Your task to perform on an android device: open app "Spotify: Music and Podcasts" (install if not already installed) Image 0: 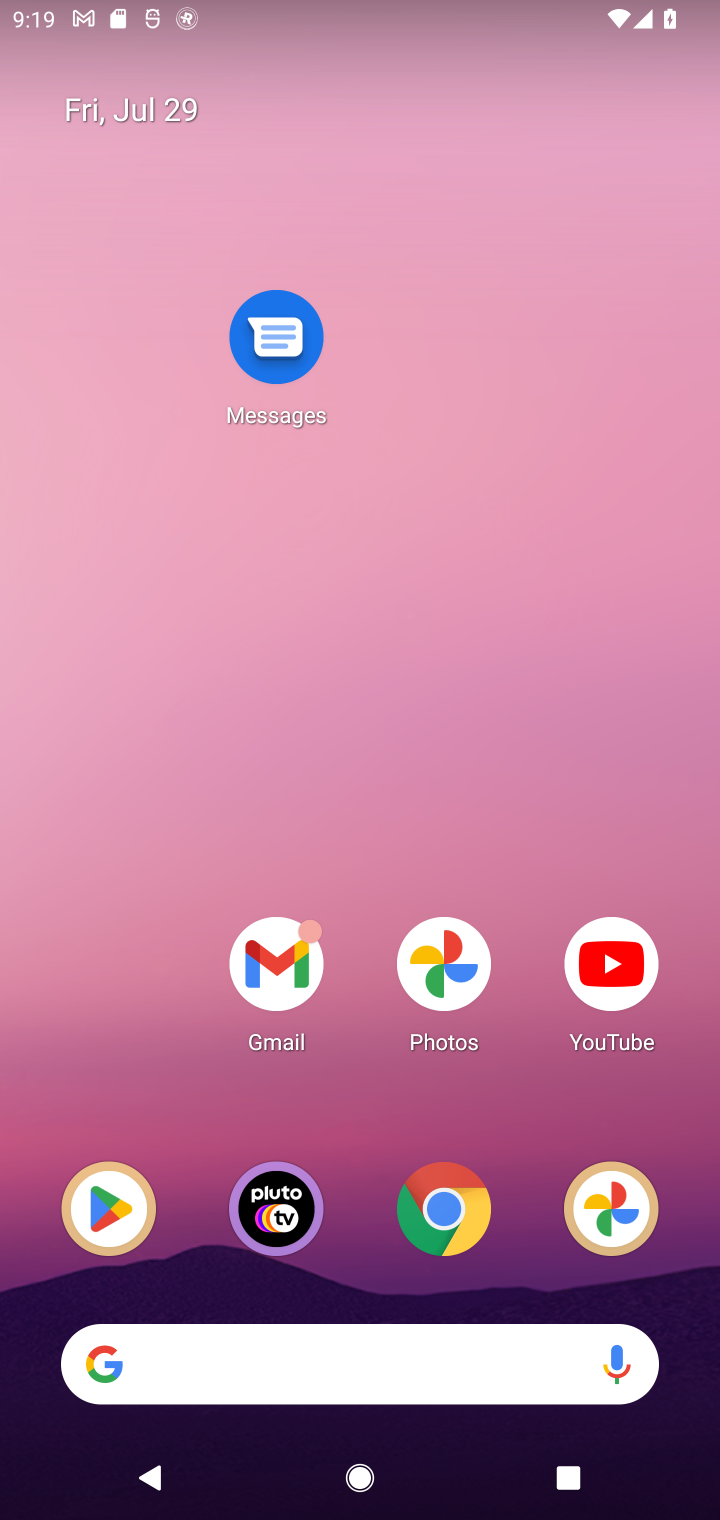
Step 0: press home button
Your task to perform on an android device: open app "Spotify: Music and Podcasts" (install if not already installed) Image 1: 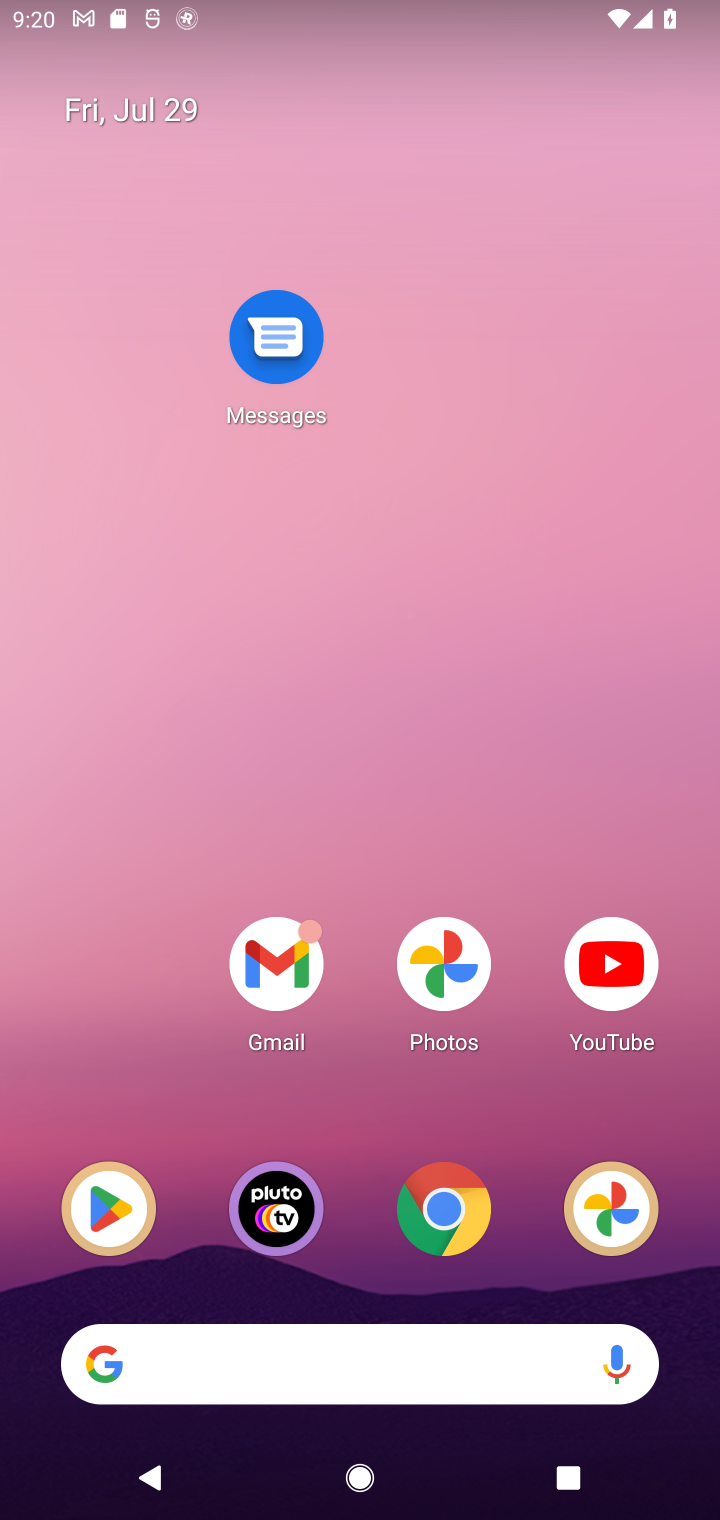
Step 1: drag from (286, 1369) to (361, 142)
Your task to perform on an android device: open app "Spotify: Music and Podcasts" (install if not already installed) Image 2: 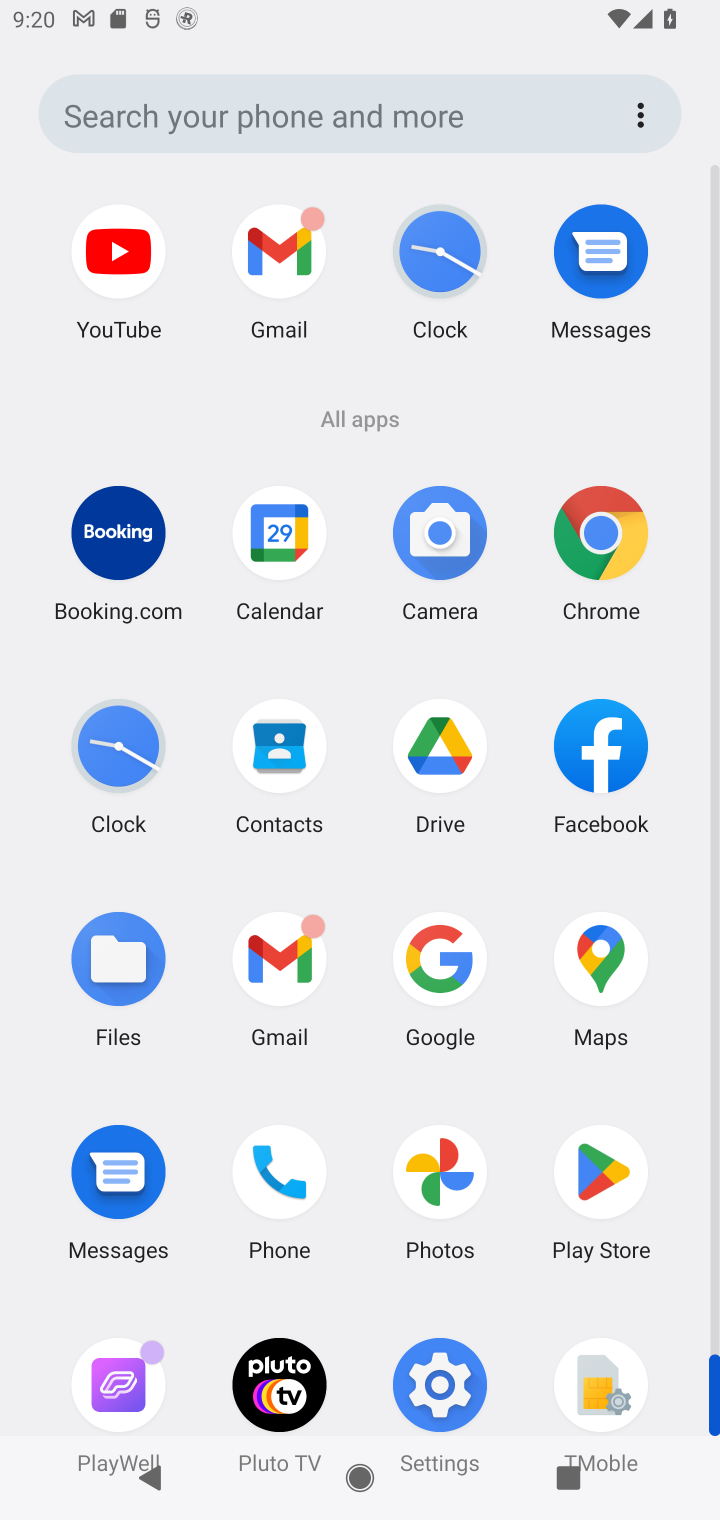
Step 2: click (594, 1186)
Your task to perform on an android device: open app "Spotify: Music and Podcasts" (install if not already installed) Image 3: 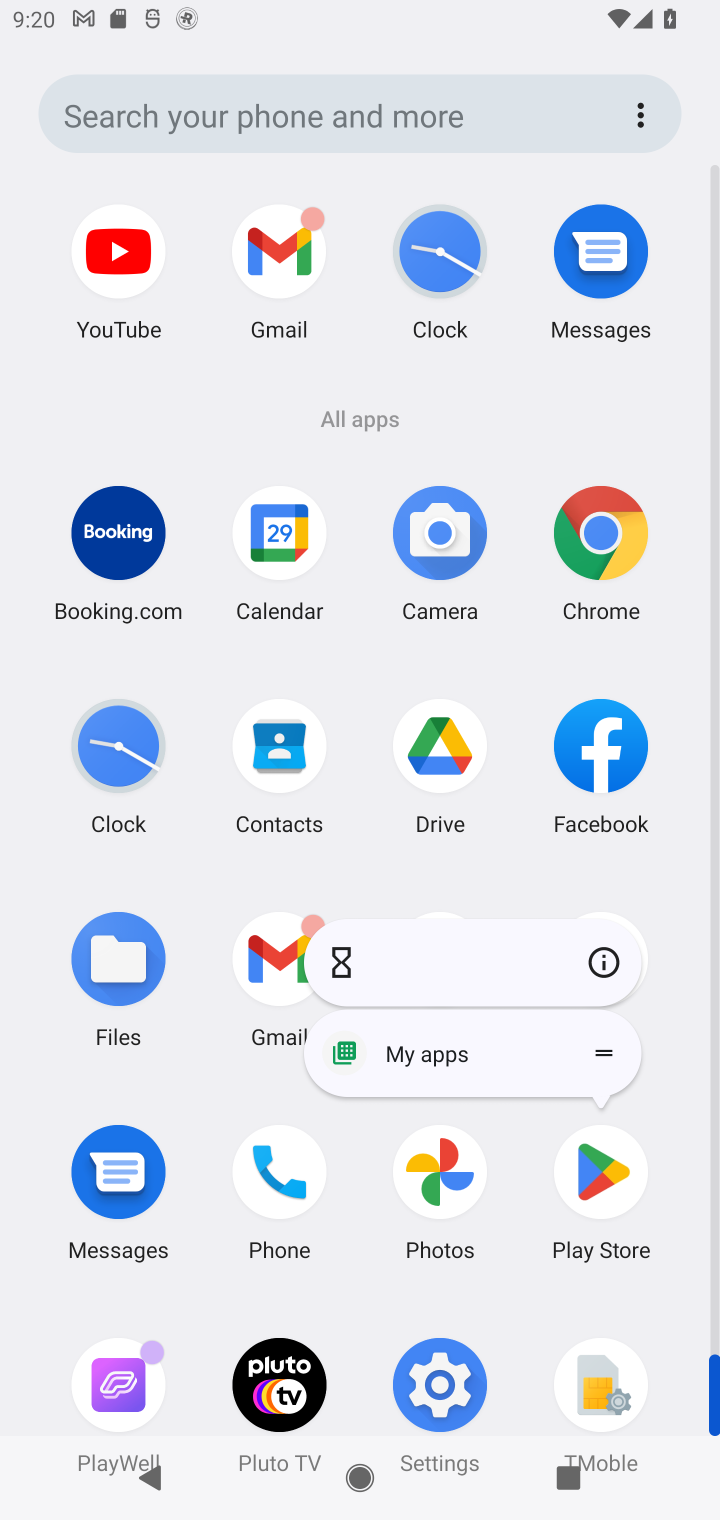
Step 3: click (594, 1186)
Your task to perform on an android device: open app "Spotify: Music and Podcasts" (install if not already installed) Image 4: 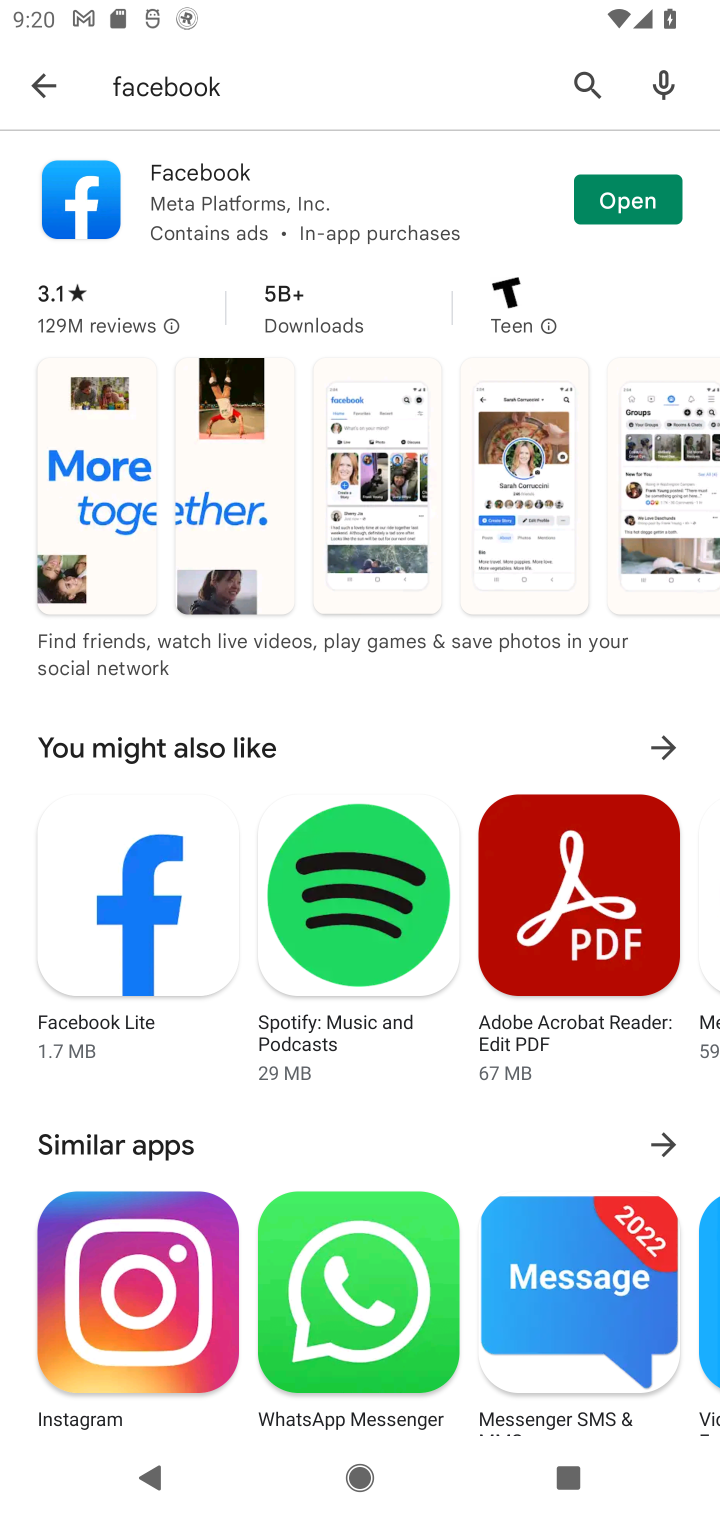
Step 4: click (474, 79)
Your task to perform on an android device: open app "Spotify: Music and Podcasts" (install if not already installed) Image 5: 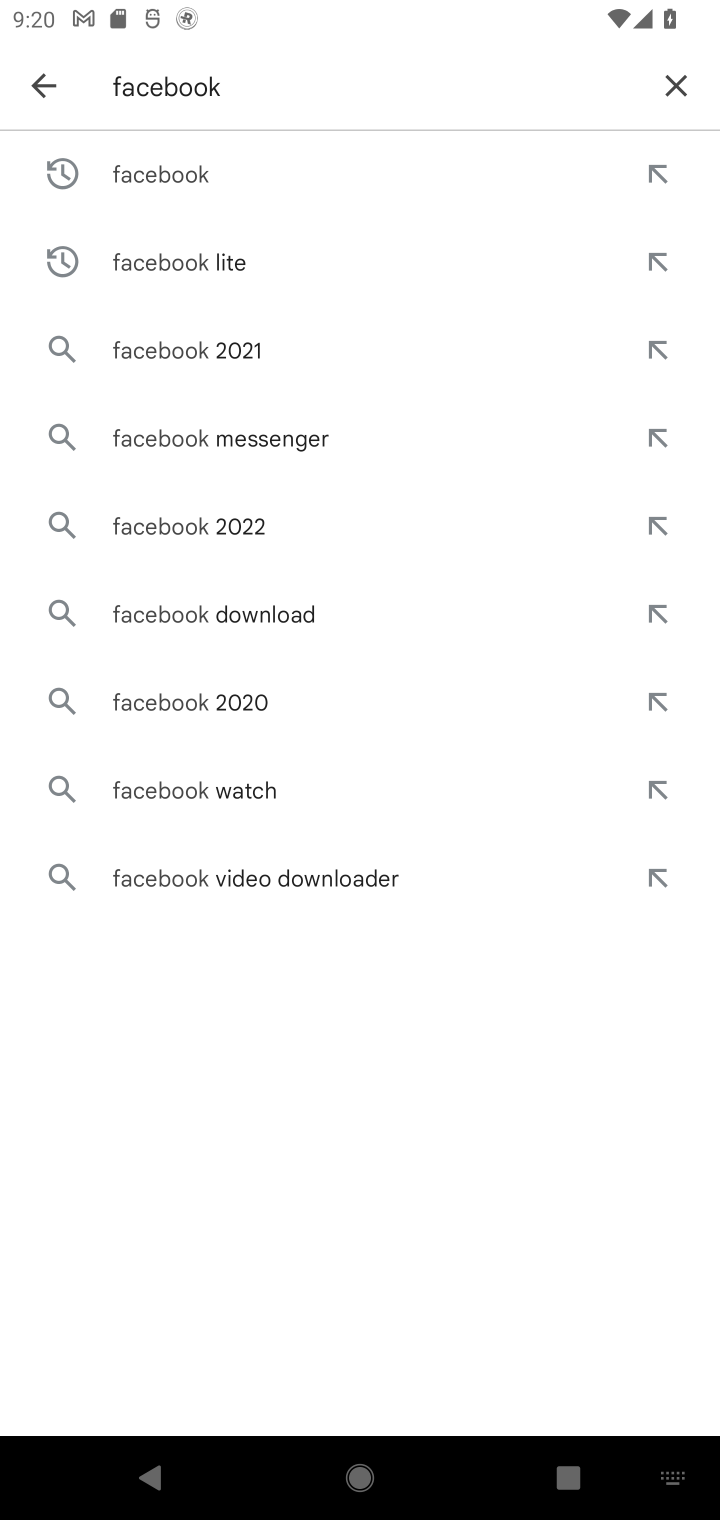
Step 5: click (668, 77)
Your task to perform on an android device: open app "Spotify: Music and Podcasts" (install if not already installed) Image 6: 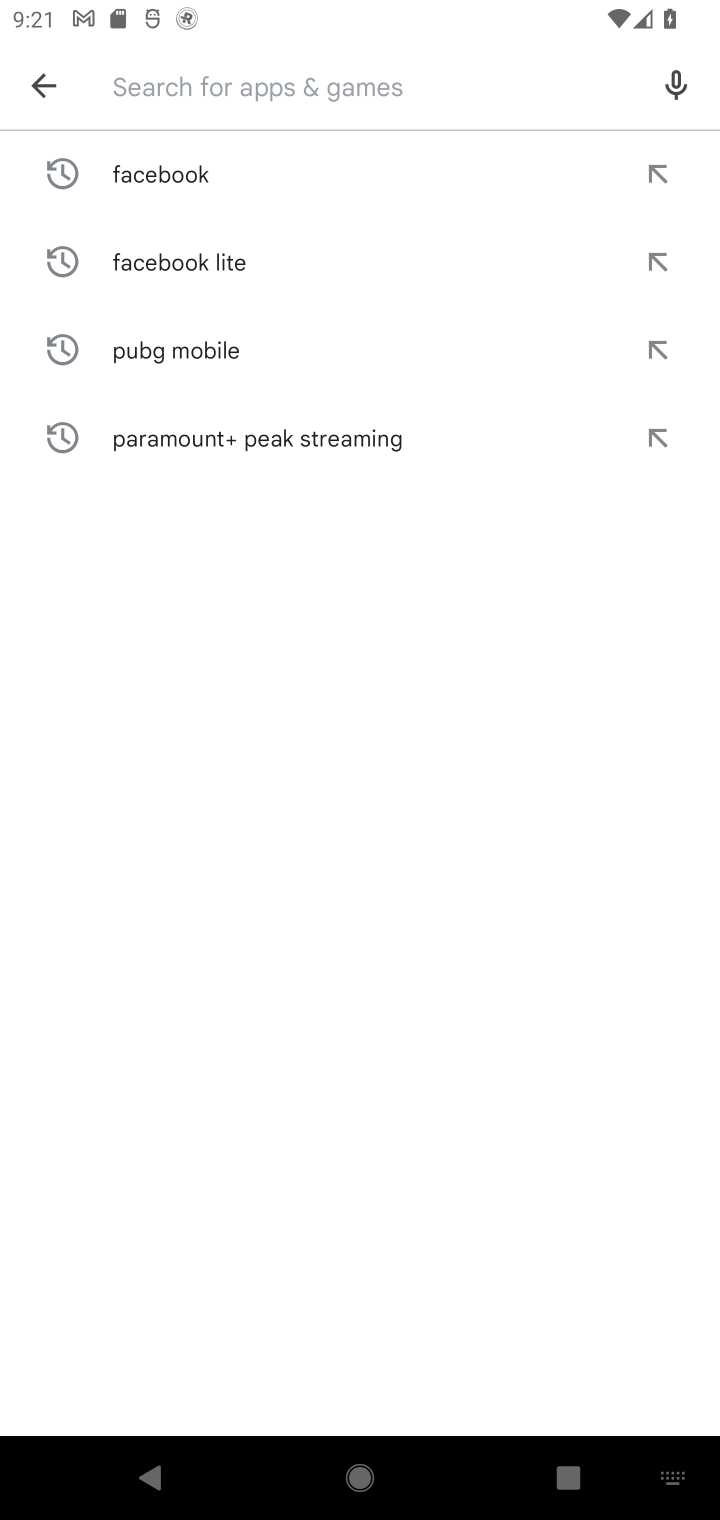
Step 6: type "Spotify: Music and Podcasts"
Your task to perform on an android device: open app "Spotify: Music and Podcasts" (install if not already installed) Image 7: 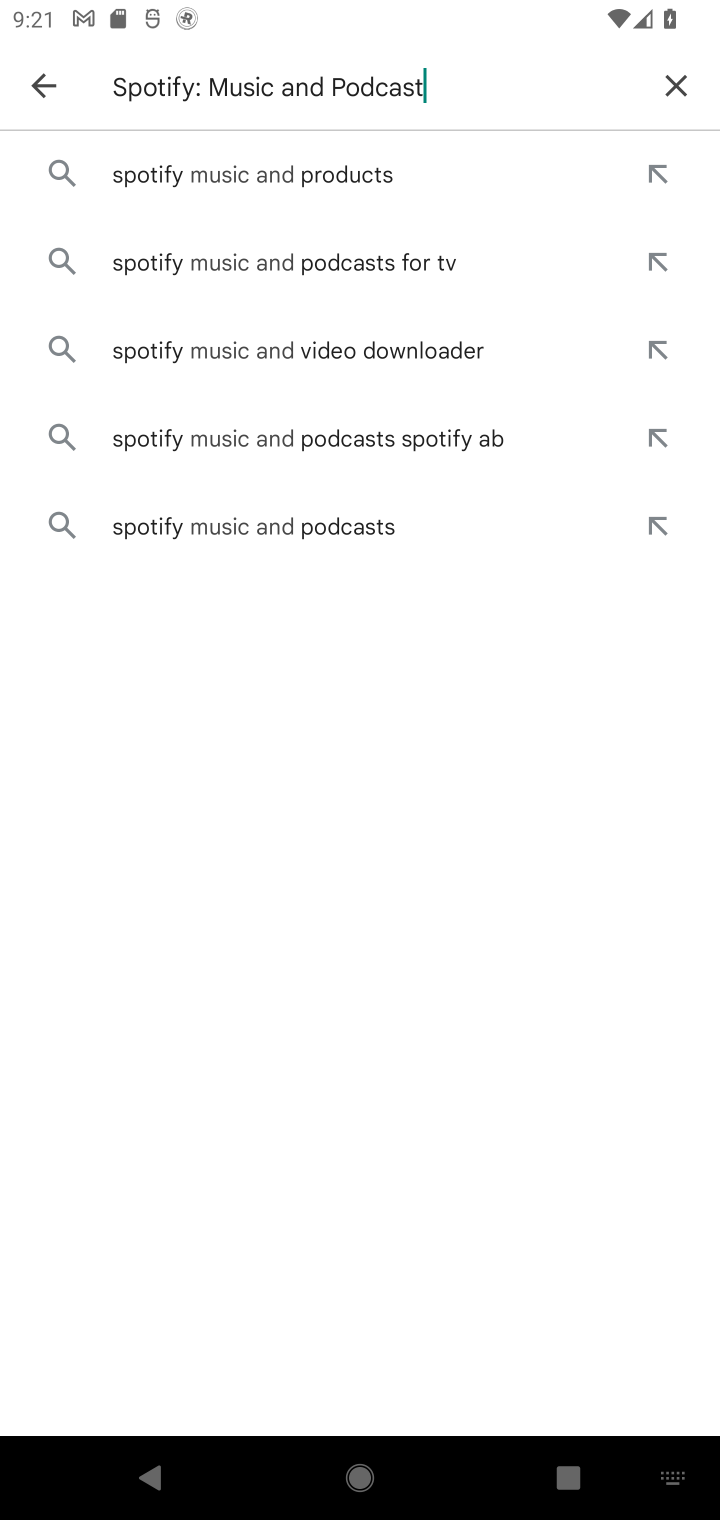
Step 7: type ""
Your task to perform on an android device: open app "Spotify: Music and Podcasts" (install if not already installed) Image 8: 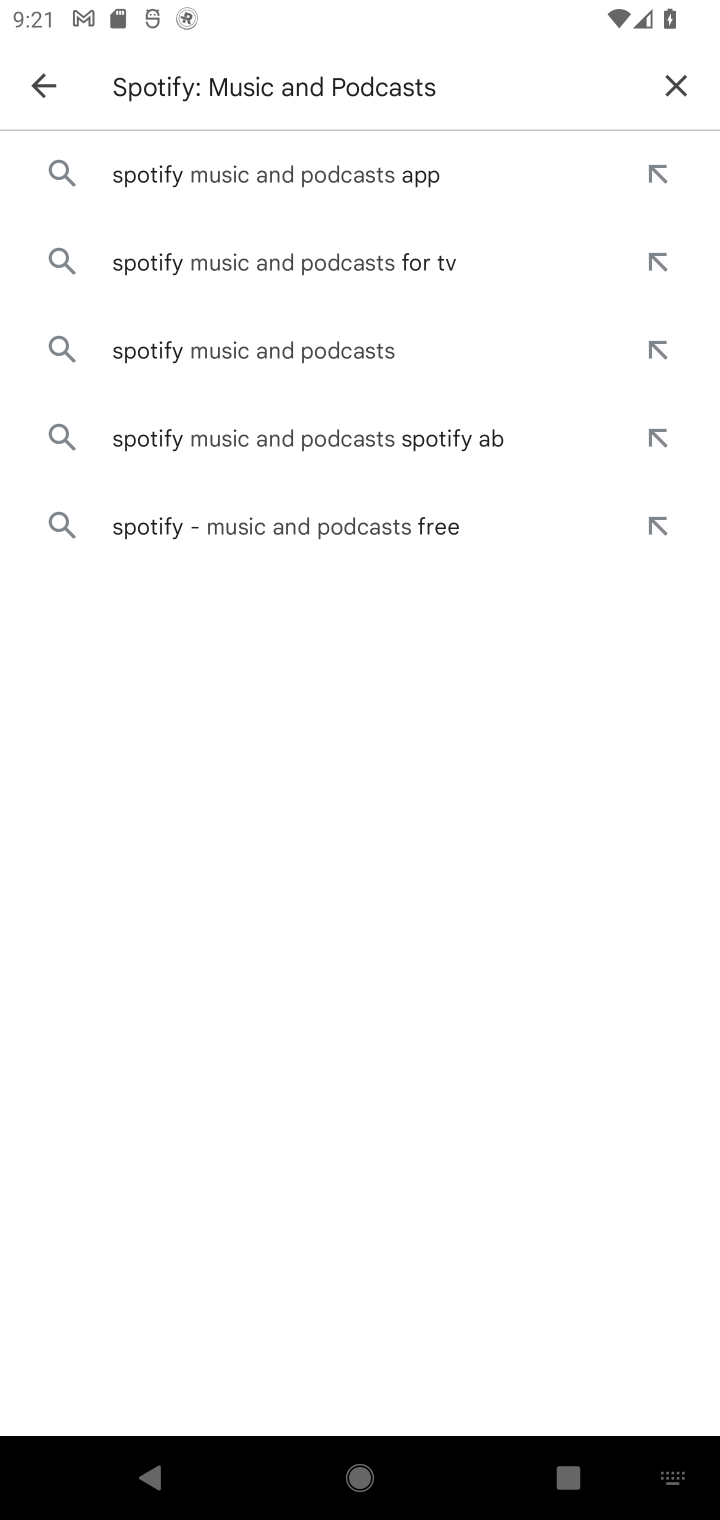
Step 8: click (361, 189)
Your task to perform on an android device: open app "Spotify: Music and Podcasts" (install if not already installed) Image 9: 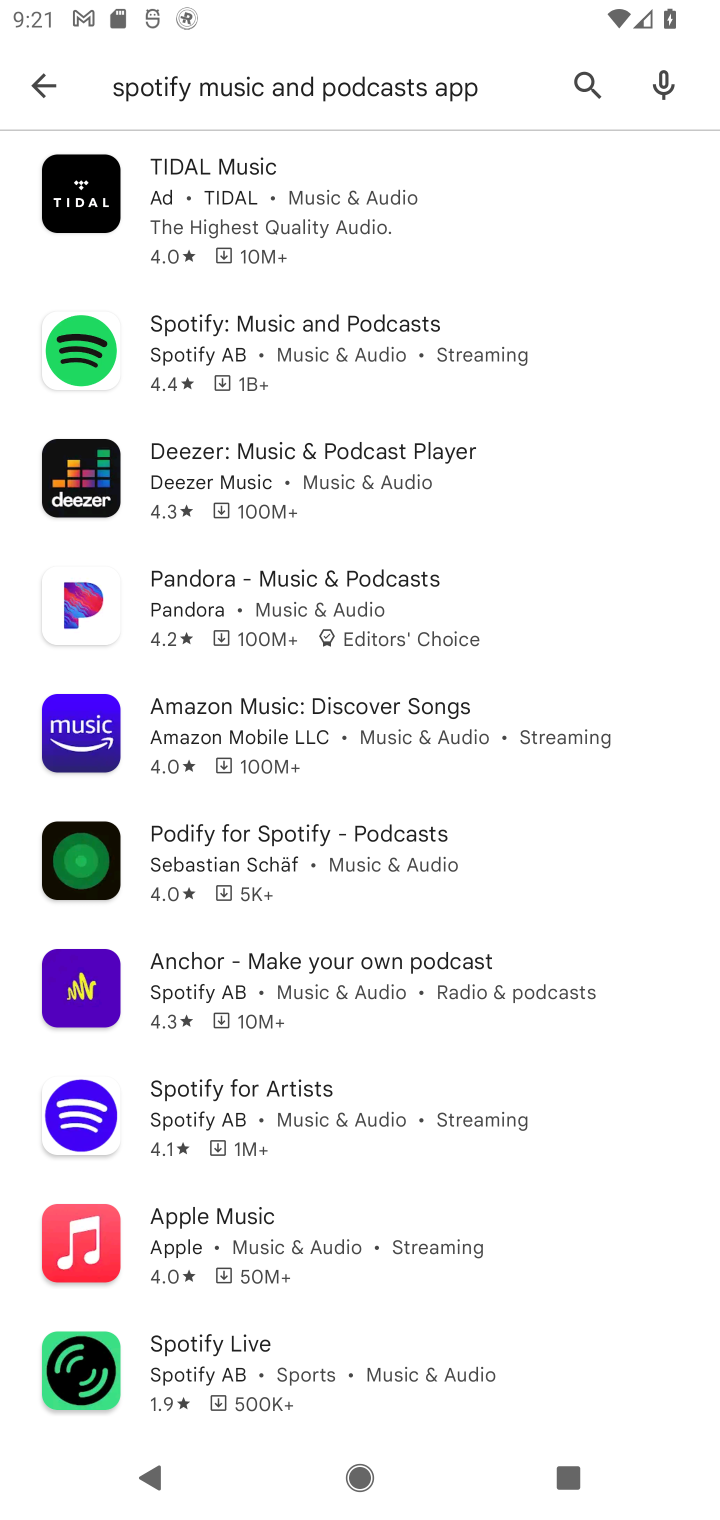
Step 9: click (279, 330)
Your task to perform on an android device: open app "Spotify: Music and Podcasts" (install if not already installed) Image 10: 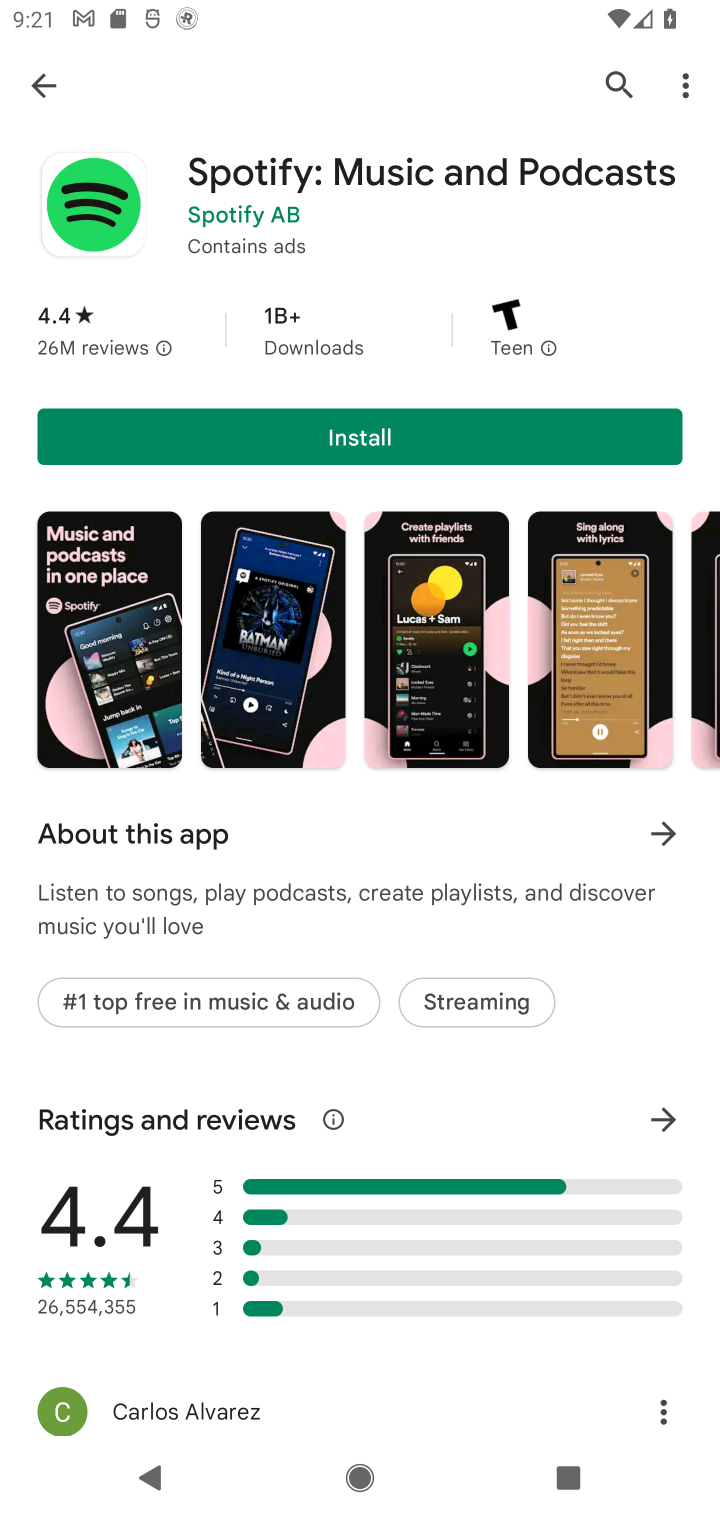
Step 10: click (366, 429)
Your task to perform on an android device: open app "Spotify: Music and Podcasts" (install if not already installed) Image 11: 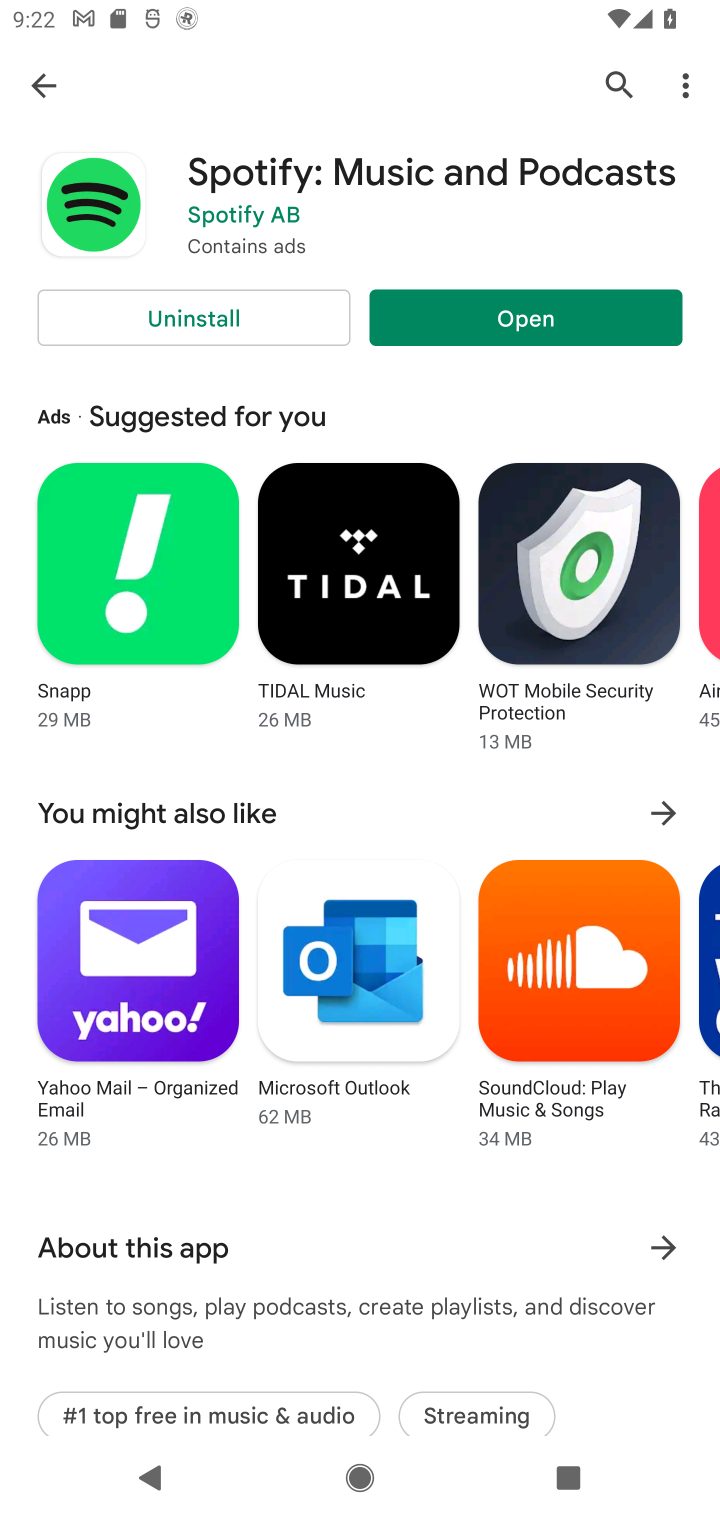
Step 11: click (513, 301)
Your task to perform on an android device: open app "Spotify: Music and Podcasts" (install if not already installed) Image 12: 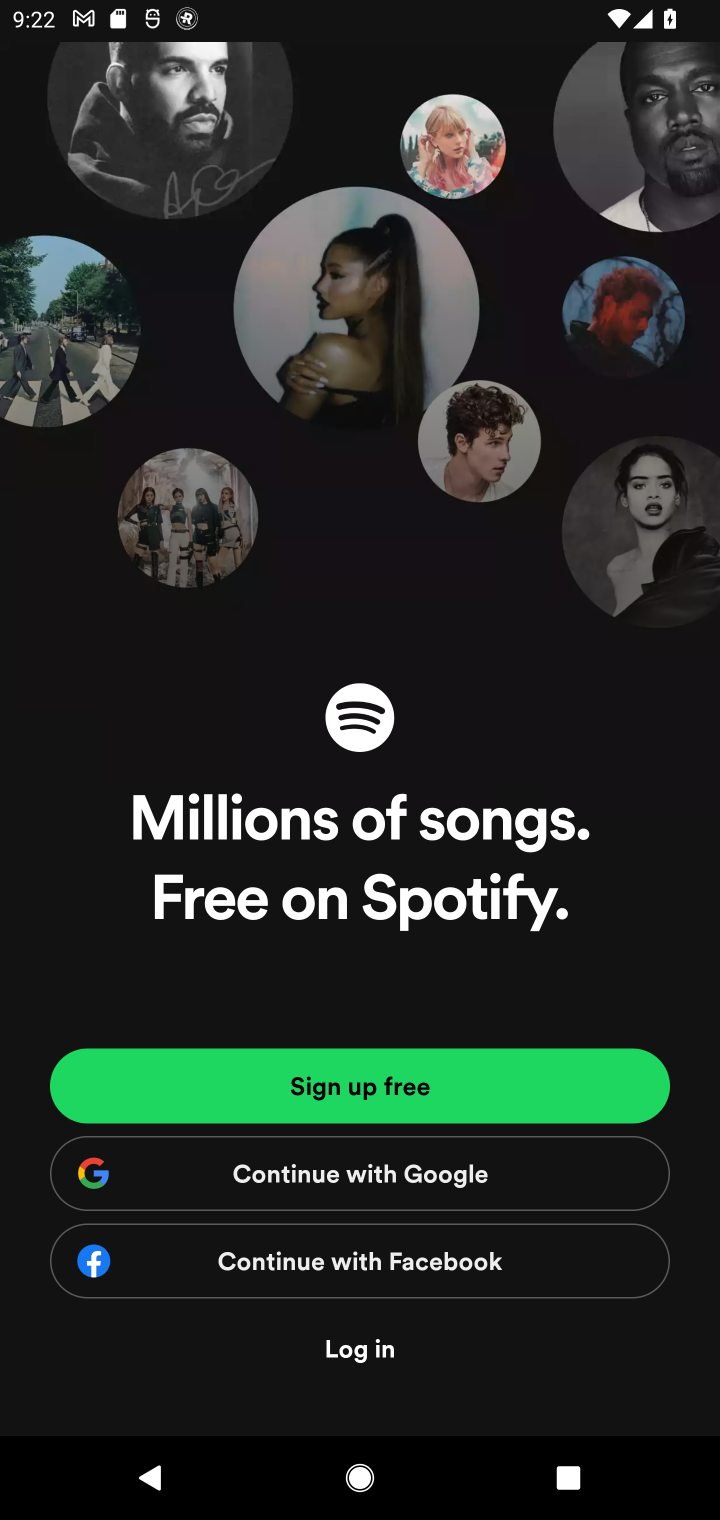
Step 12: task complete